Your task to perform on an android device: choose inbox layout in the gmail app Image 0: 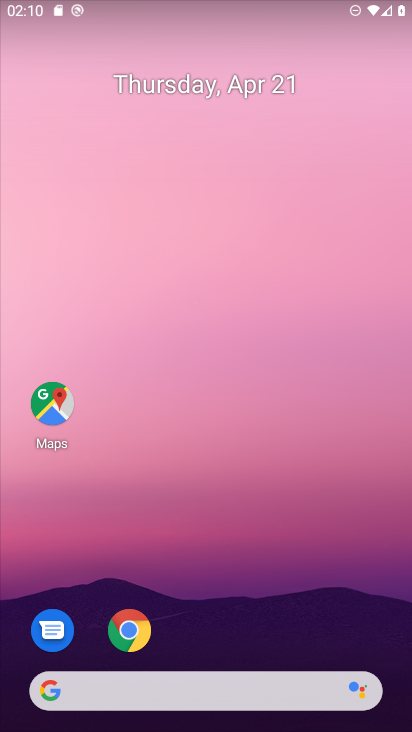
Step 0: drag from (186, 236) to (171, 115)
Your task to perform on an android device: choose inbox layout in the gmail app Image 1: 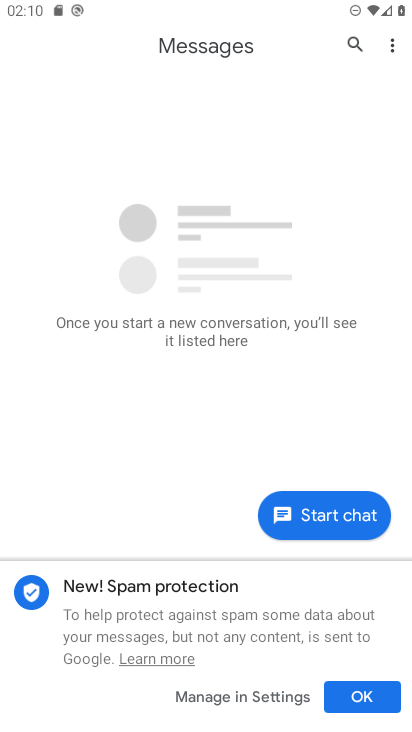
Step 1: press home button
Your task to perform on an android device: choose inbox layout in the gmail app Image 2: 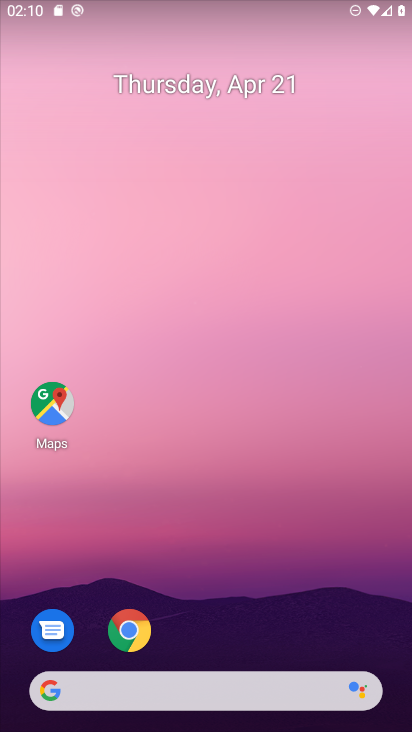
Step 2: drag from (276, 629) to (282, 14)
Your task to perform on an android device: choose inbox layout in the gmail app Image 3: 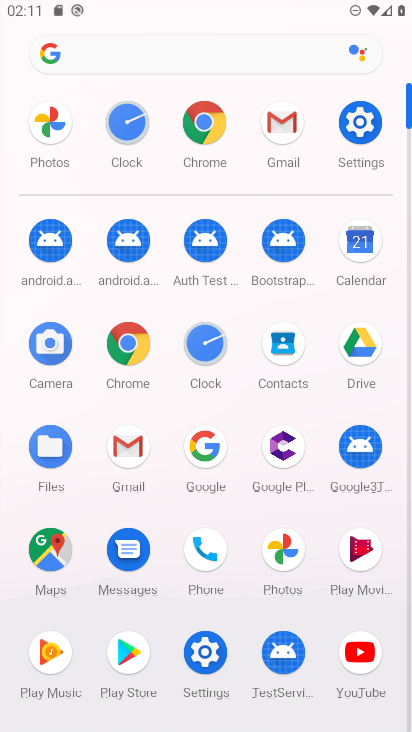
Step 3: click (280, 132)
Your task to perform on an android device: choose inbox layout in the gmail app Image 4: 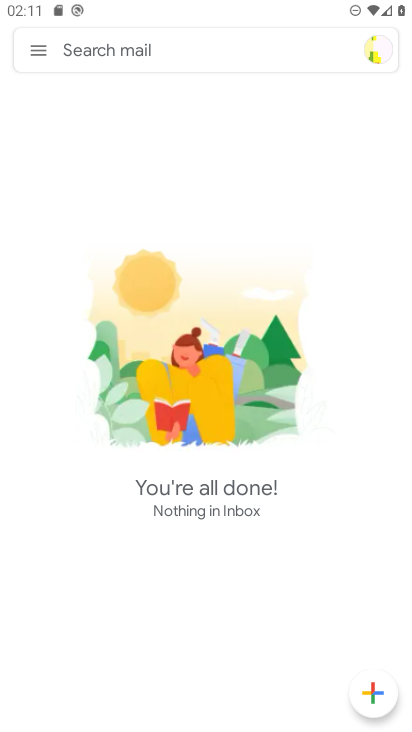
Step 4: task complete